Your task to perform on an android device: Open the phone app and click the voicemail tab. Image 0: 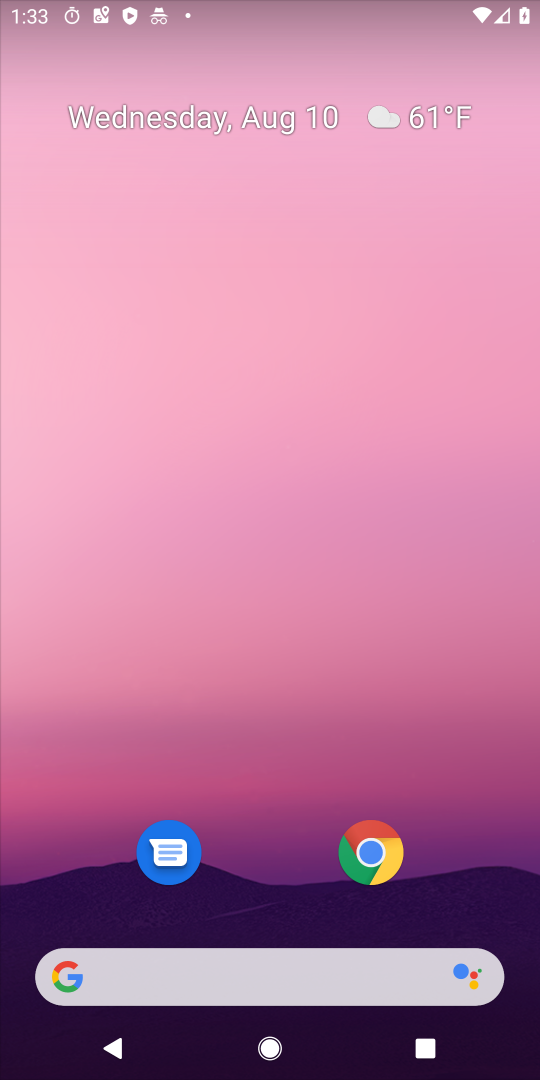
Step 0: drag from (287, 693) to (316, 82)
Your task to perform on an android device: Open the phone app and click the voicemail tab. Image 1: 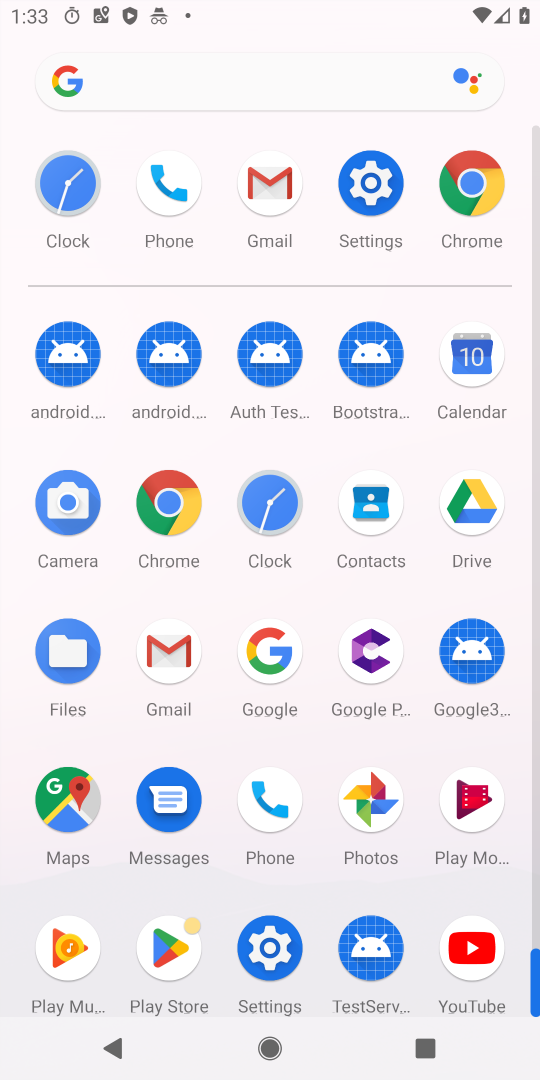
Step 1: click (279, 807)
Your task to perform on an android device: Open the phone app and click the voicemail tab. Image 2: 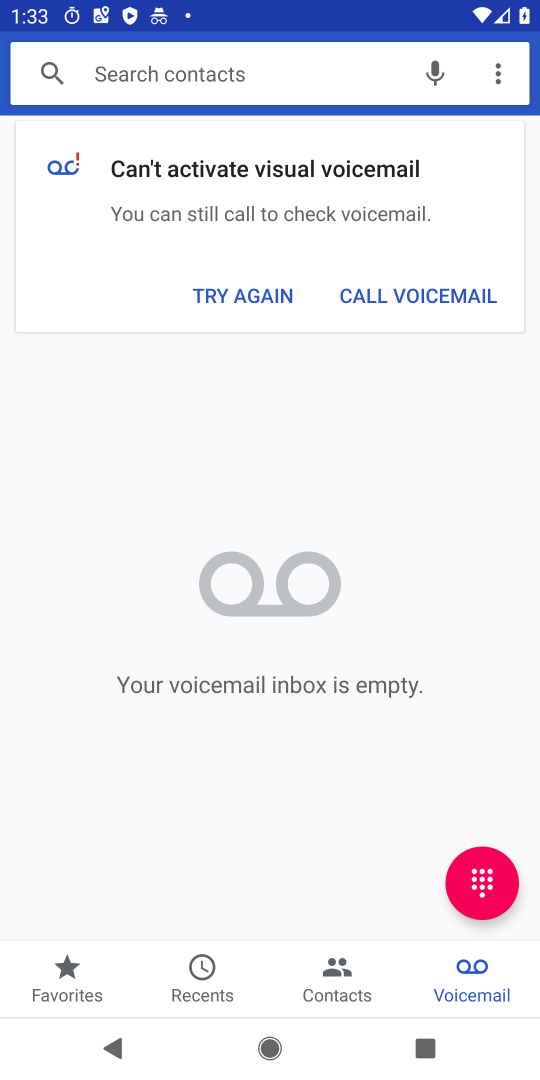
Step 2: click (468, 999)
Your task to perform on an android device: Open the phone app and click the voicemail tab. Image 3: 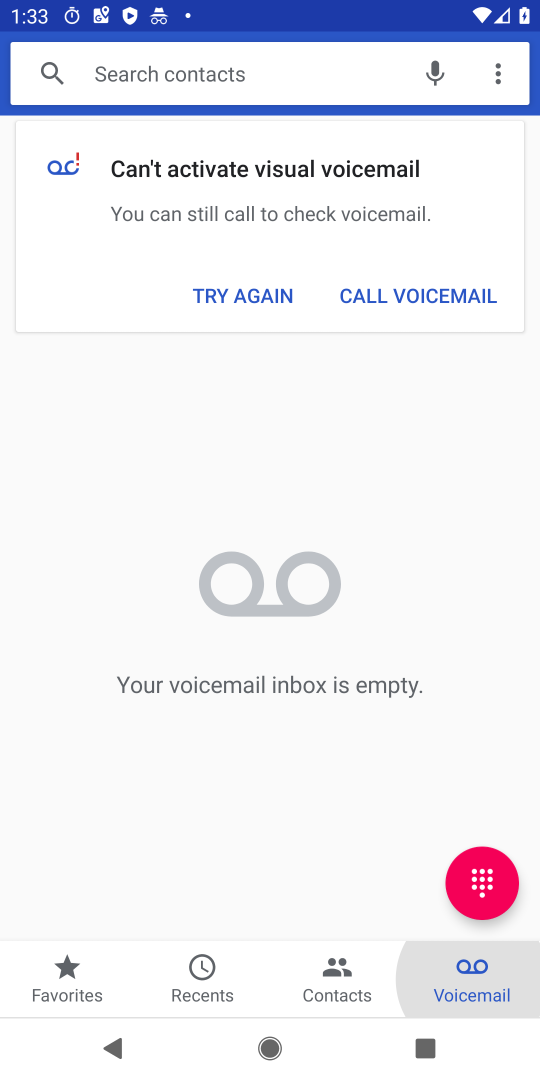
Step 3: click (468, 999)
Your task to perform on an android device: Open the phone app and click the voicemail tab. Image 4: 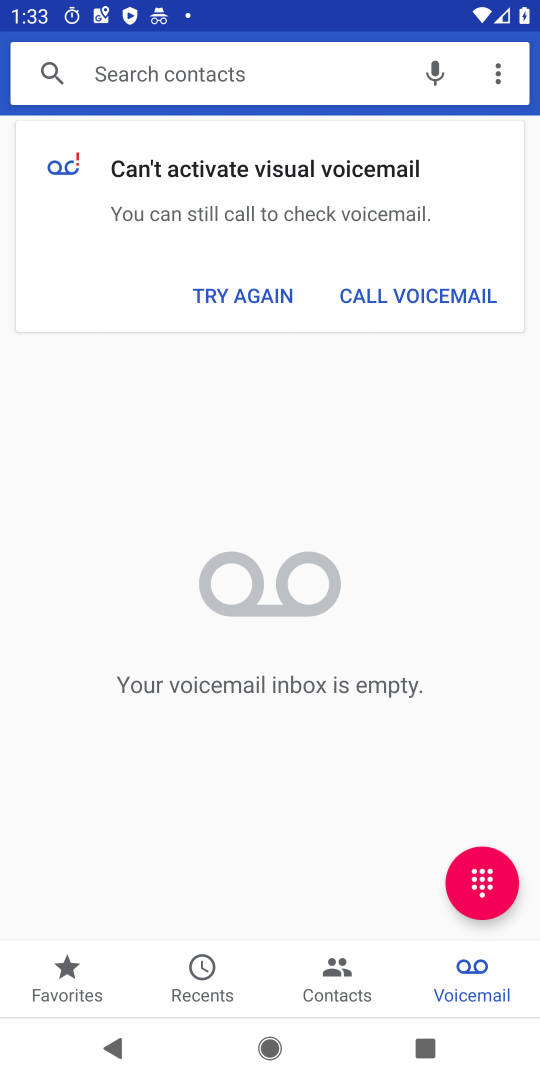
Step 4: task complete